Your task to perform on an android device: turn smart compose on in the gmail app Image 0: 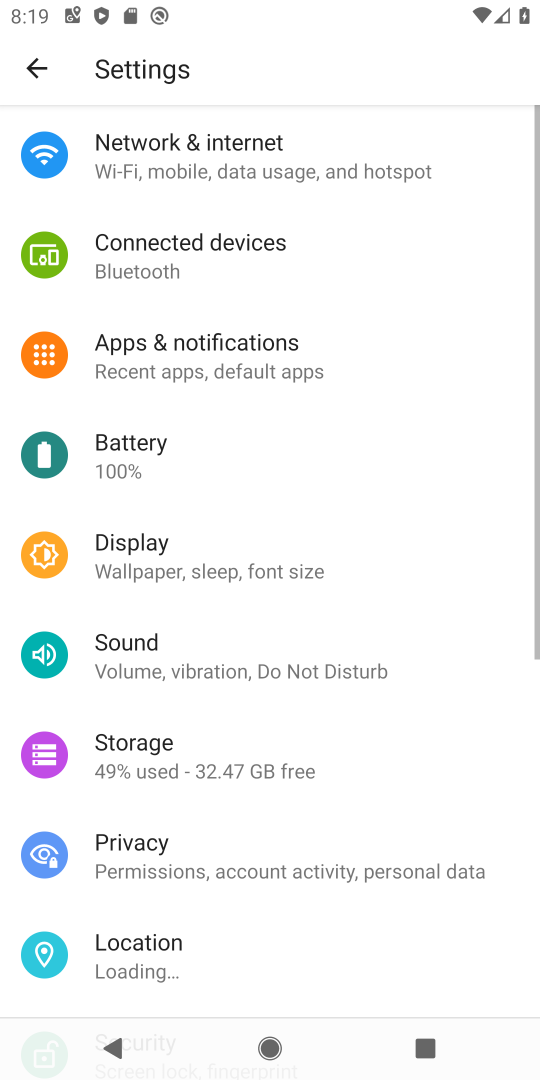
Step 0: press home button
Your task to perform on an android device: turn smart compose on in the gmail app Image 1: 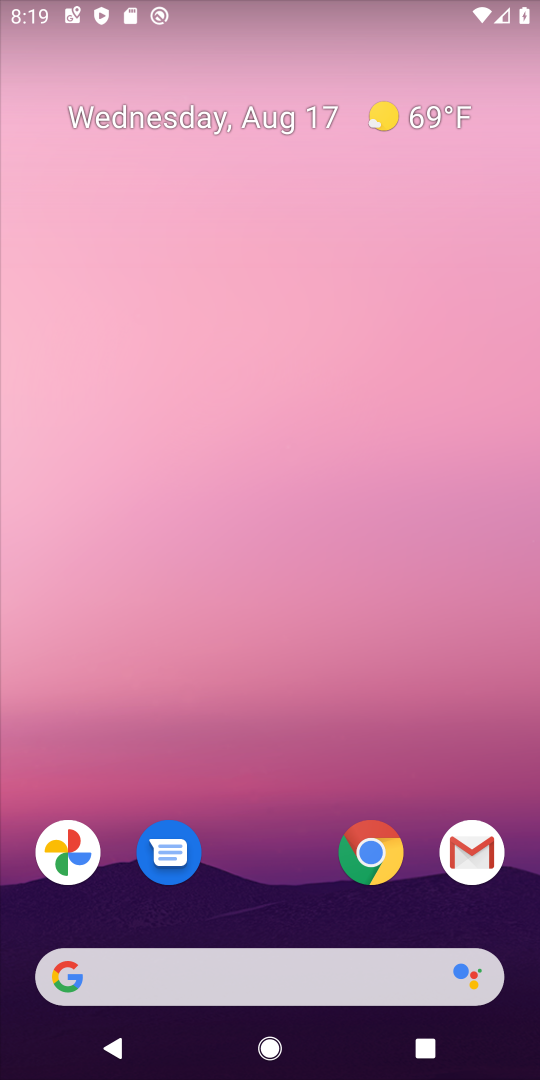
Step 1: click (473, 848)
Your task to perform on an android device: turn smart compose on in the gmail app Image 2: 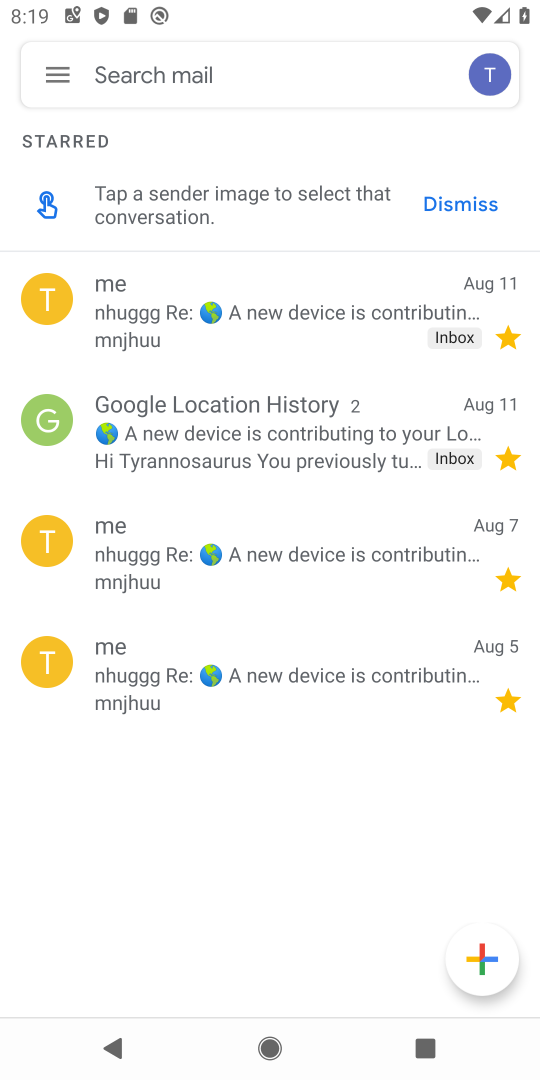
Step 2: click (53, 71)
Your task to perform on an android device: turn smart compose on in the gmail app Image 3: 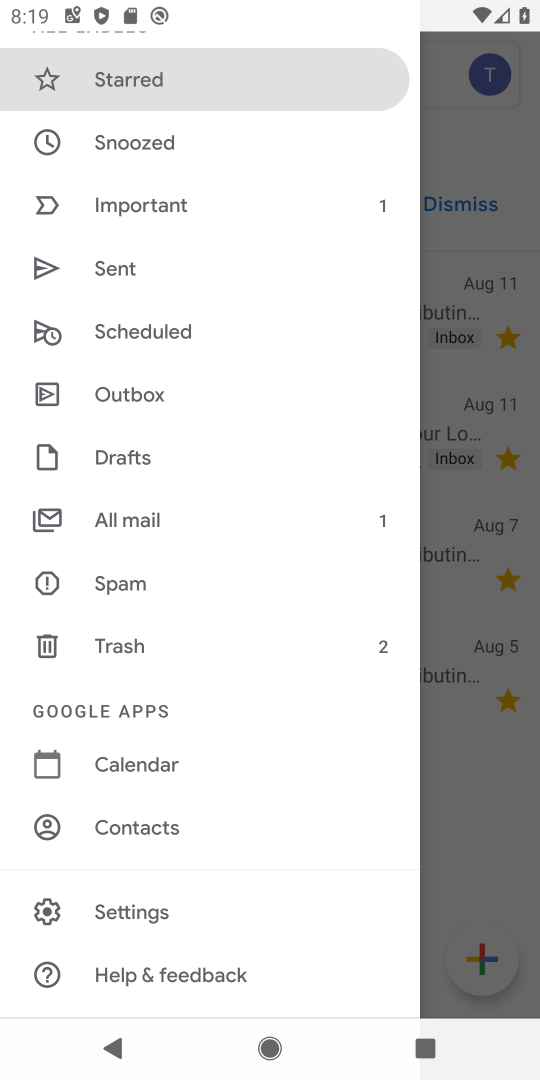
Step 3: click (129, 894)
Your task to perform on an android device: turn smart compose on in the gmail app Image 4: 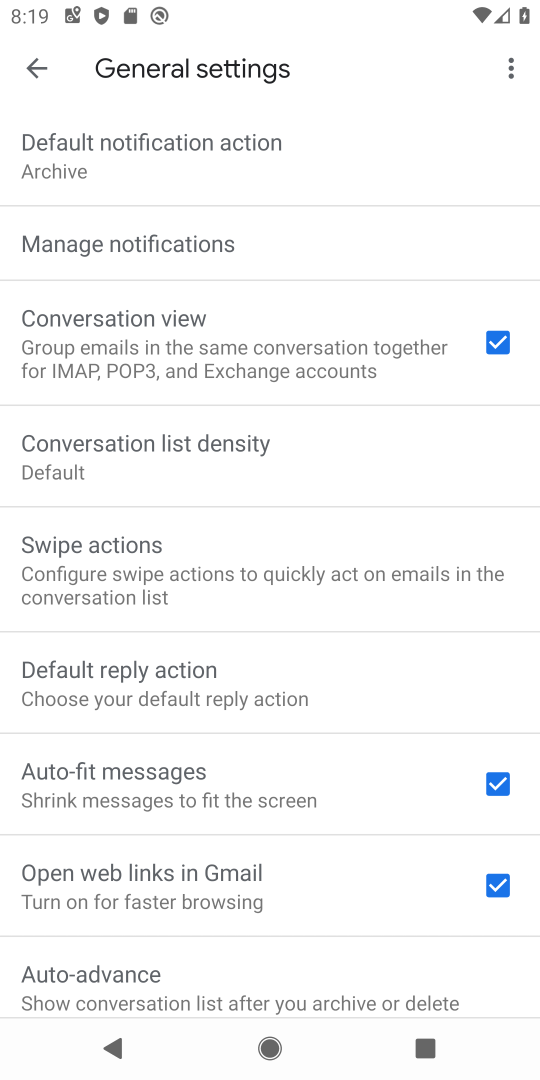
Step 4: drag from (275, 894) to (275, 589)
Your task to perform on an android device: turn smart compose on in the gmail app Image 5: 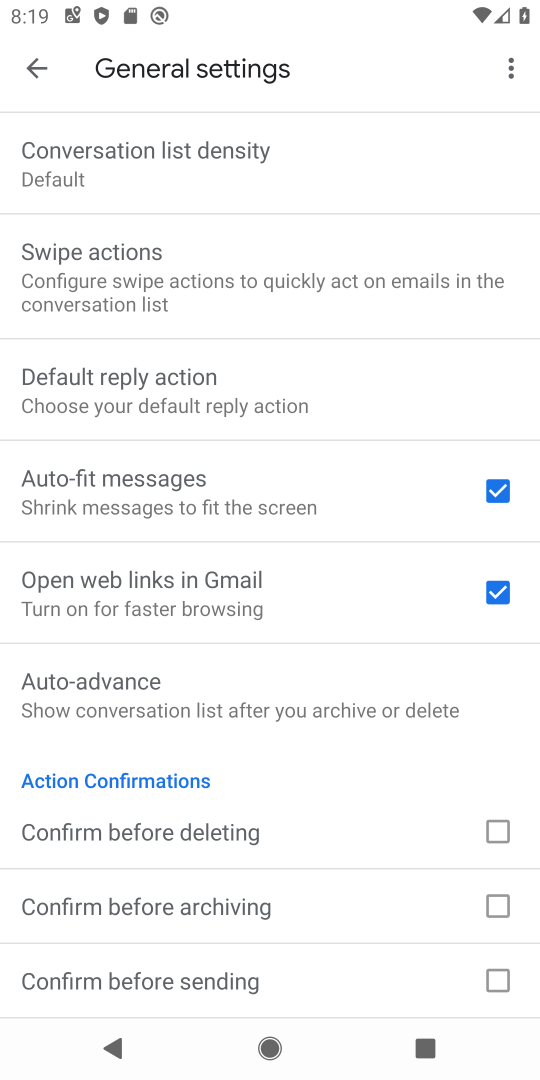
Step 5: drag from (302, 751) to (210, 442)
Your task to perform on an android device: turn smart compose on in the gmail app Image 6: 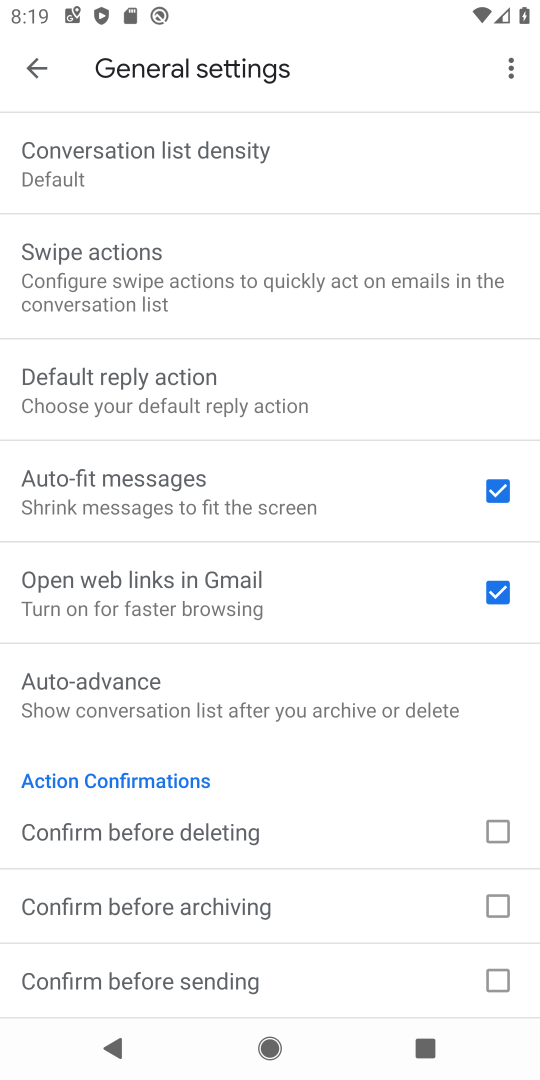
Step 6: click (37, 61)
Your task to perform on an android device: turn smart compose on in the gmail app Image 7: 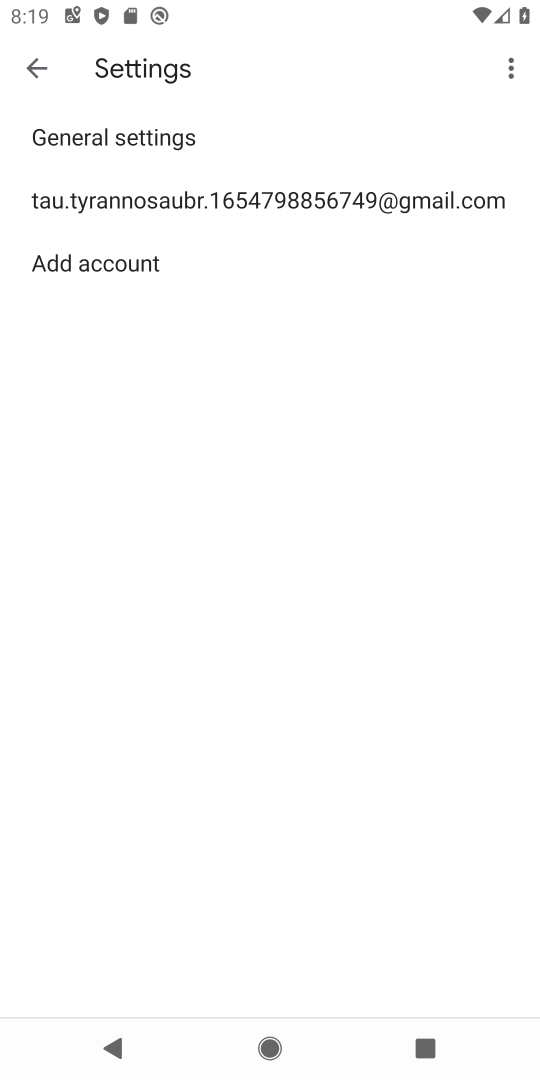
Step 7: click (107, 194)
Your task to perform on an android device: turn smart compose on in the gmail app Image 8: 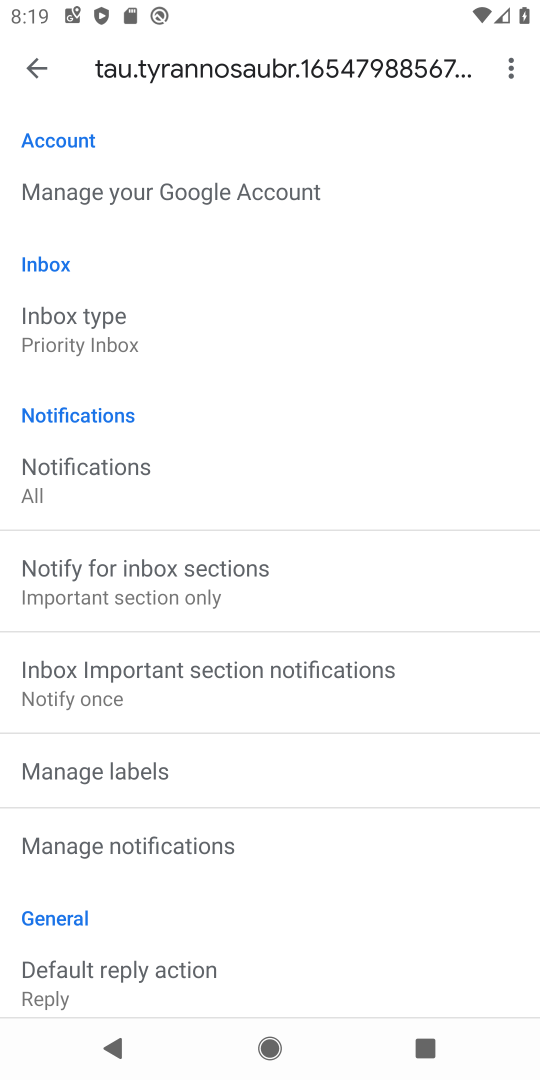
Step 8: task complete